Your task to perform on an android device: stop showing notifications on the lock screen Image 0: 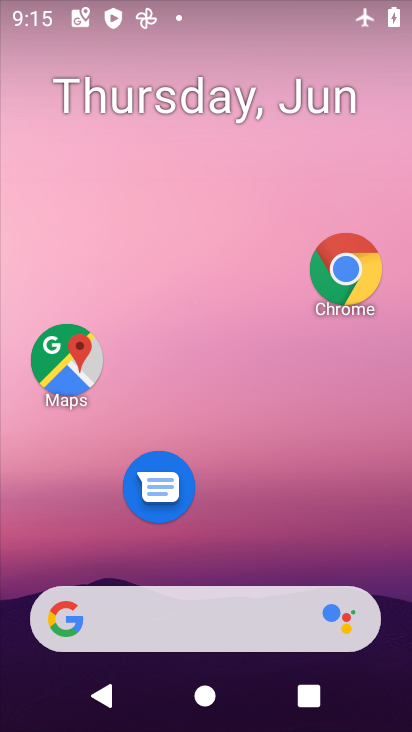
Step 0: drag from (209, 362) to (205, 8)
Your task to perform on an android device: stop showing notifications on the lock screen Image 1: 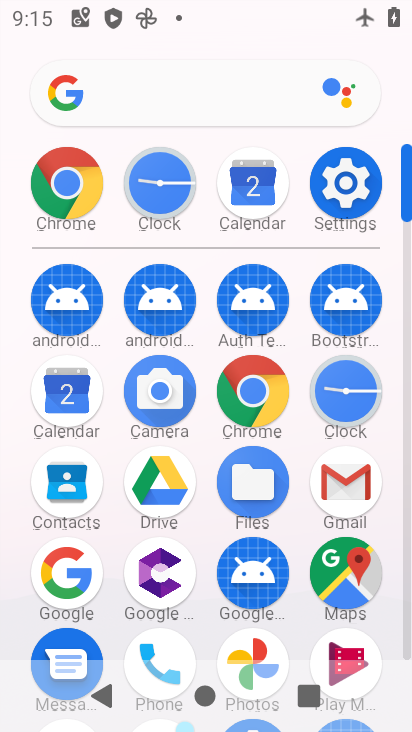
Step 1: click (342, 169)
Your task to perform on an android device: stop showing notifications on the lock screen Image 2: 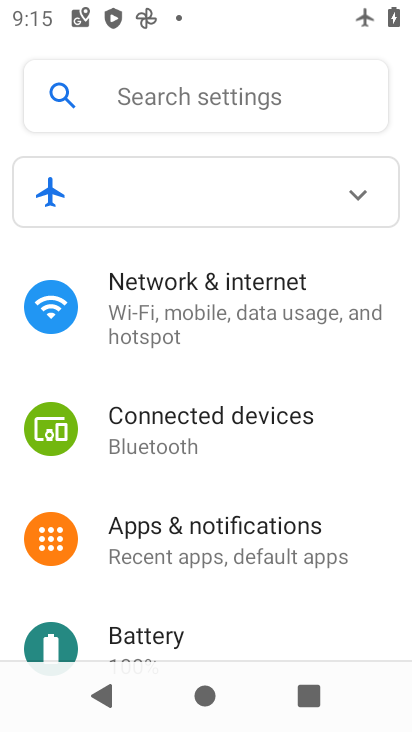
Step 2: click (243, 537)
Your task to perform on an android device: stop showing notifications on the lock screen Image 3: 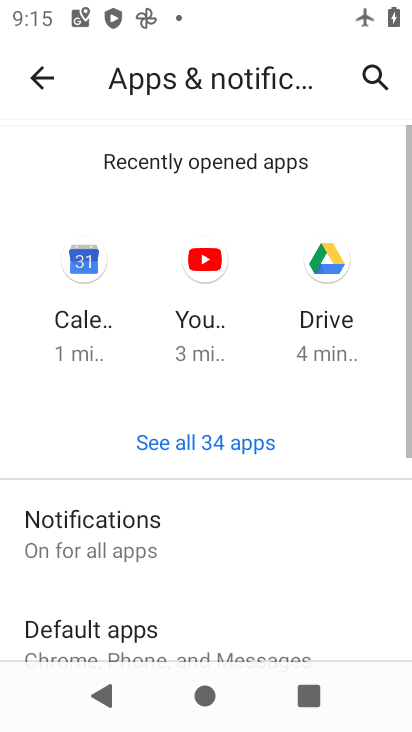
Step 3: click (173, 538)
Your task to perform on an android device: stop showing notifications on the lock screen Image 4: 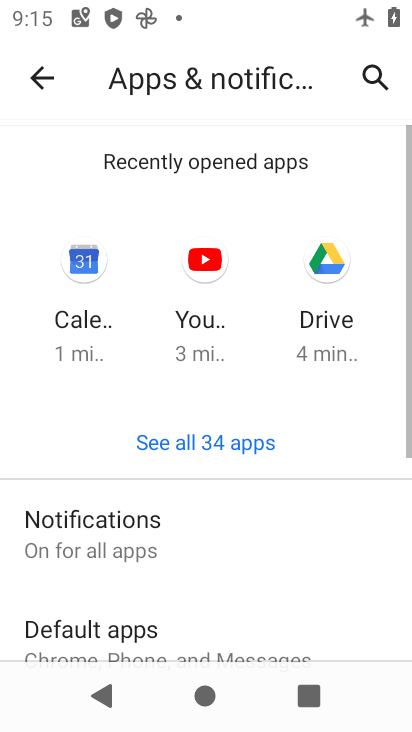
Step 4: click (172, 538)
Your task to perform on an android device: stop showing notifications on the lock screen Image 5: 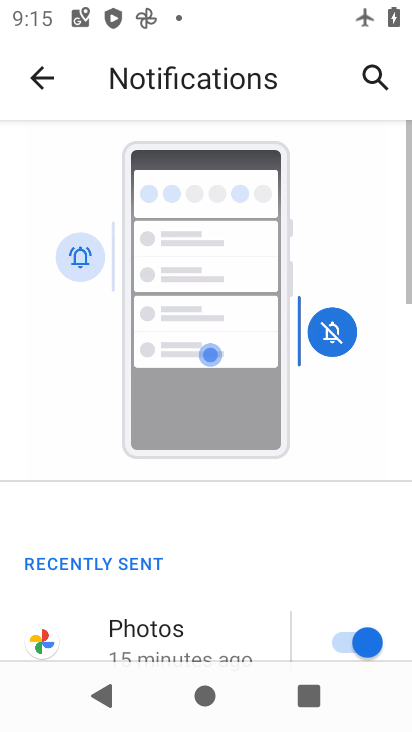
Step 5: drag from (192, 618) to (208, 153)
Your task to perform on an android device: stop showing notifications on the lock screen Image 6: 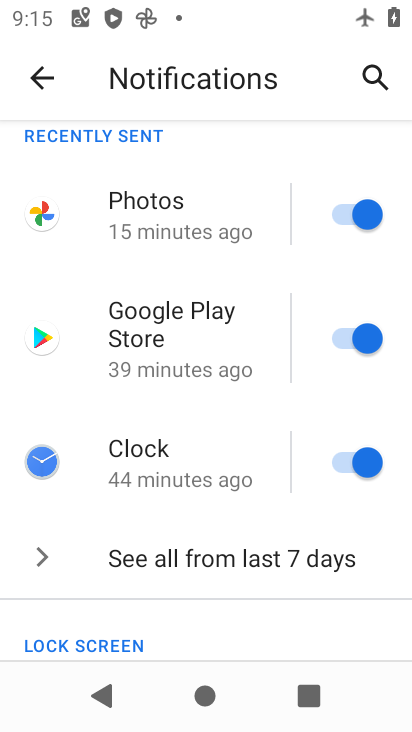
Step 6: drag from (235, 632) to (266, 135)
Your task to perform on an android device: stop showing notifications on the lock screen Image 7: 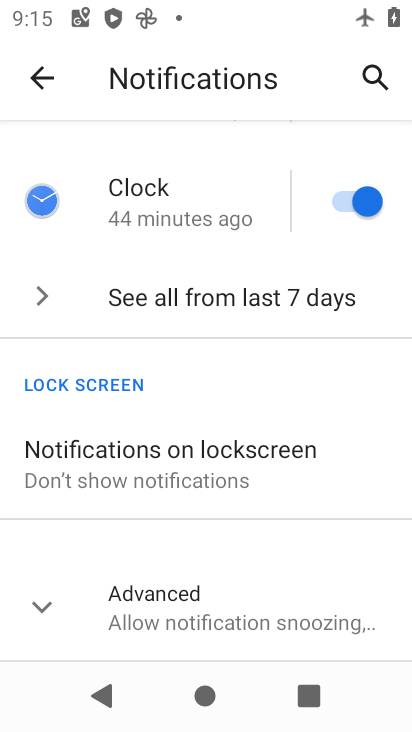
Step 7: click (213, 466)
Your task to perform on an android device: stop showing notifications on the lock screen Image 8: 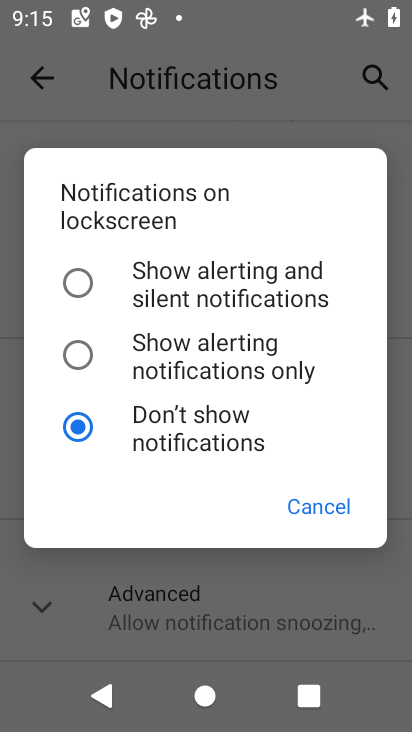
Step 8: task complete